Your task to perform on an android device: Search for pizza restaurants on Maps Image 0: 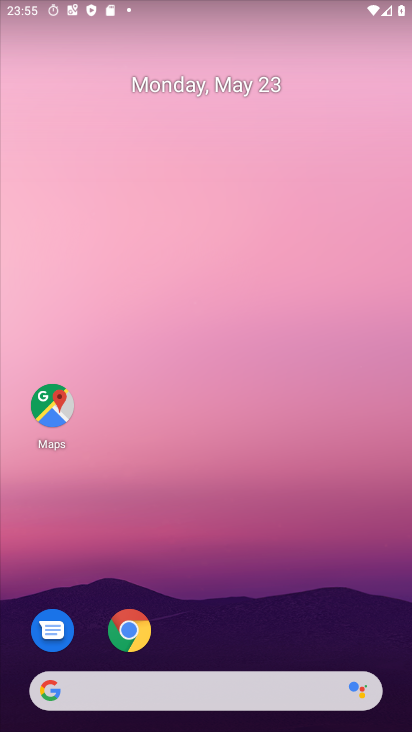
Step 0: click (51, 403)
Your task to perform on an android device: Search for pizza restaurants on Maps Image 1: 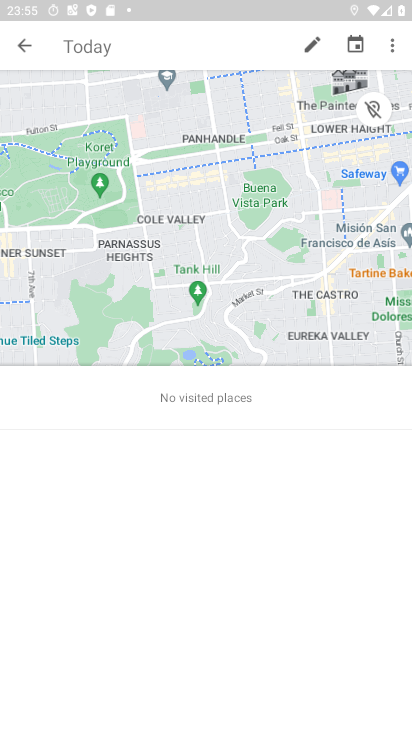
Step 1: click (27, 49)
Your task to perform on an android device: Search for pizza restaurants on Maps Image 2: 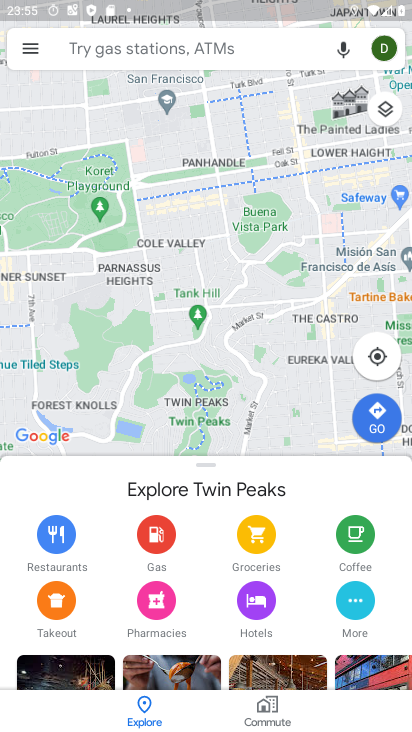
Step 2: click (83, 46)
Your task to perform on an android device: Search for pizza restaurants on Maps Image 3: 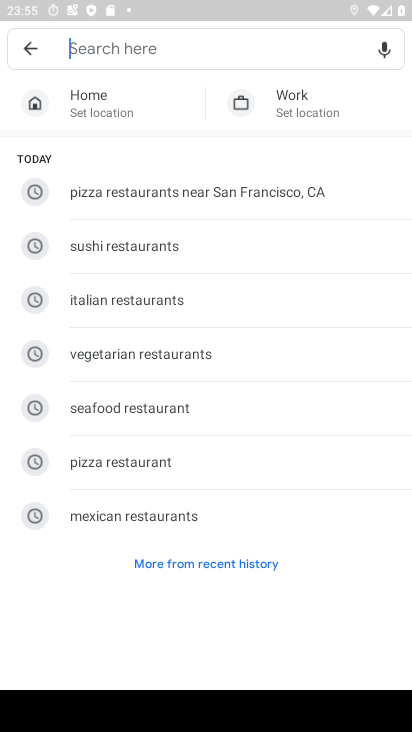
Step 3: type "pizza restaurants"
Your task to perform on an android device: Search for pizza restaurants on Maps Image 4: 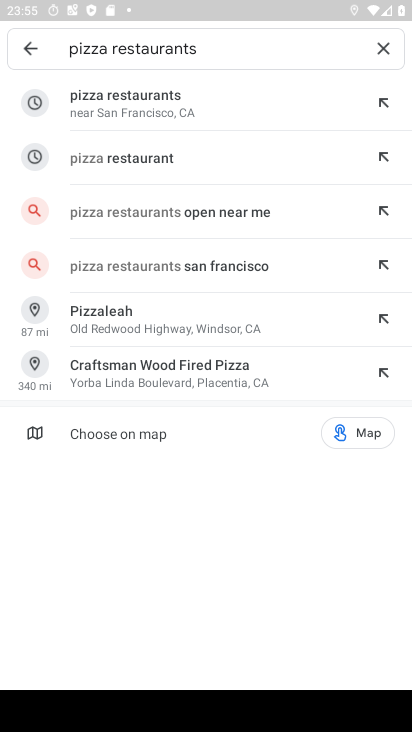
Step 4: click (119, 156)
Your task to perform on an android device: Search for pizza restaurants on Maps Image 5: 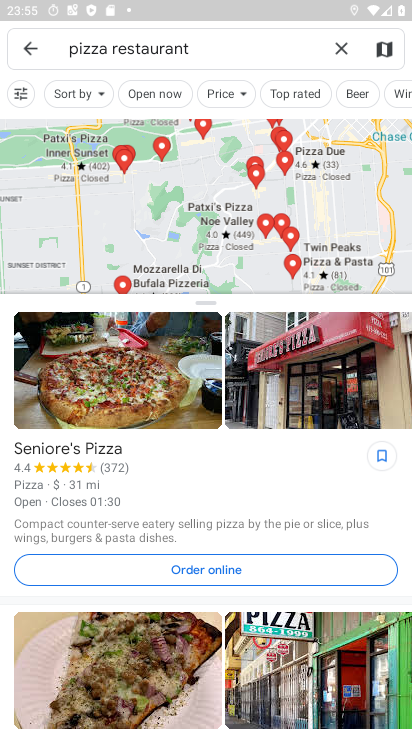
Step 5: task complete